Your task to perform on an android device: delete browsing data in the chrome app Image 0: 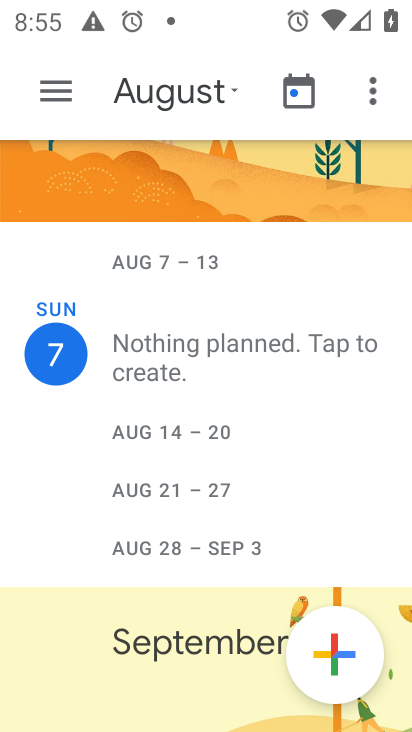
Step 0: press home button
Your task to perform on an android device: delete browsing data in the chrome app Image 1: 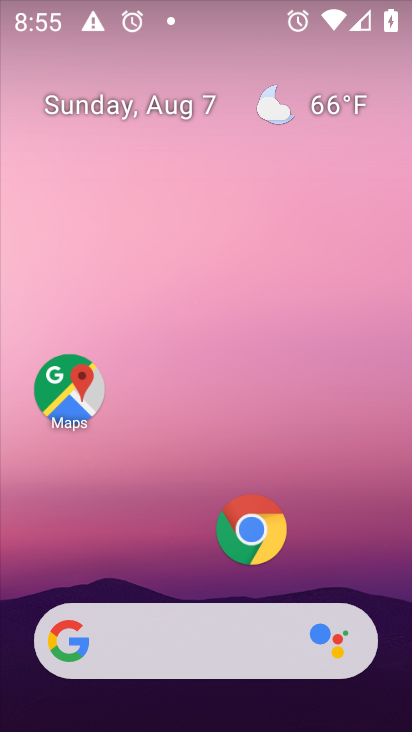
Step 1: drag from (186, 127) to (249, 8)
Your task to perform on an android device: delete browsing data in the chrome app Image 2: 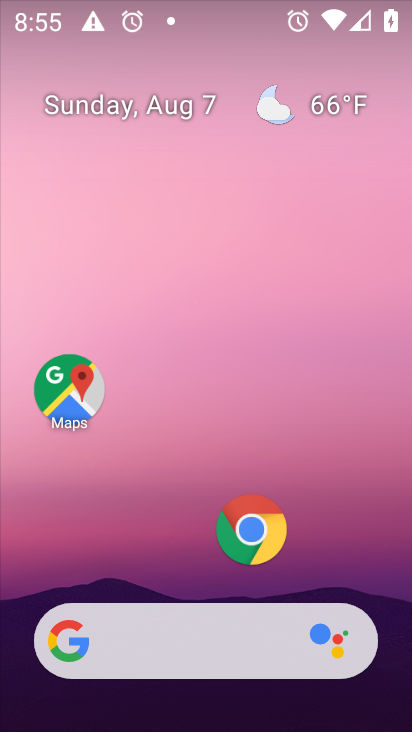
Step 2: drag from (188, 550) to (234, 51)
Your task to perform on an android device: delete browsing data in the chrome app Image 3: 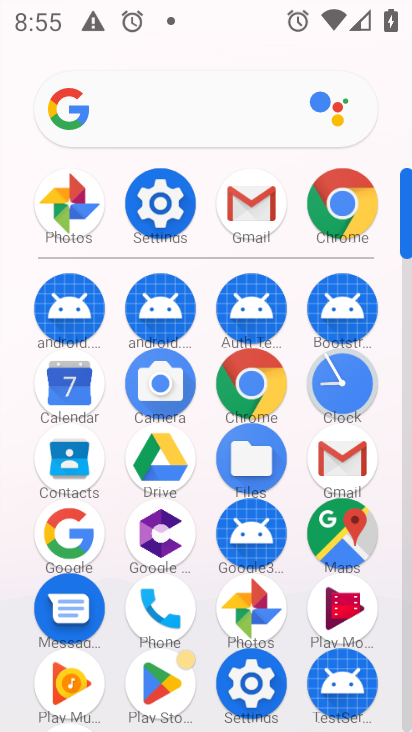
Step 3: click (264, 381)
Your task to perform on an android device: delete browsing data in the chrome app Image 4: 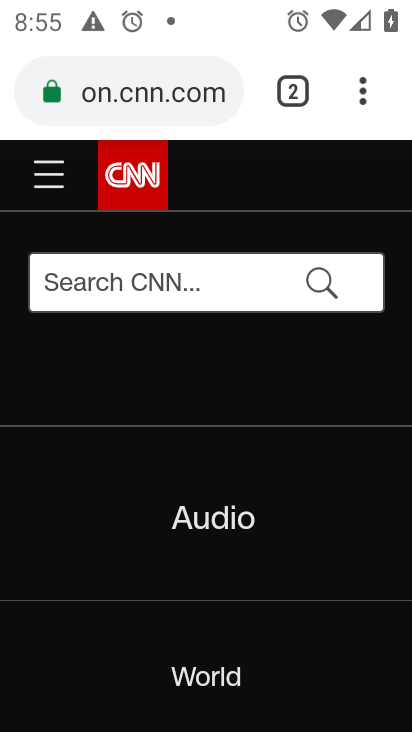
Step 4: click (361, 89)
Your task to perform on an android device: delete browsing data in the chrome app Image 5: 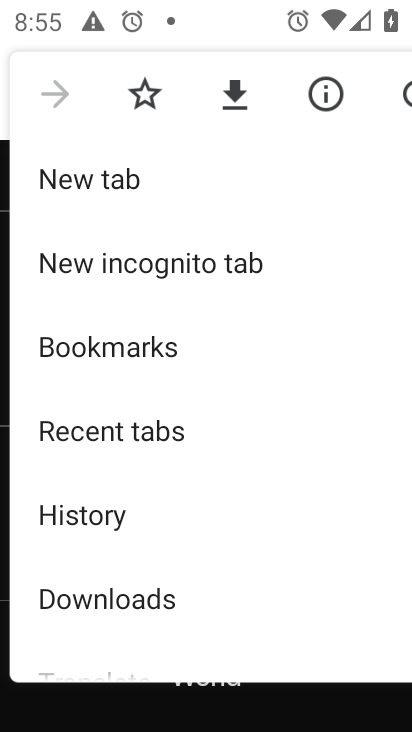
Step 5: click (97, 516)
Your task to perform on an android device: delete browsing data in the chrome app Image 6: 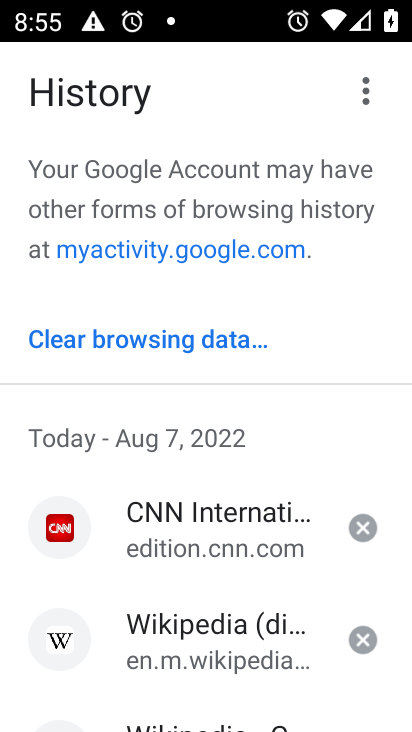
Step 6: click (179, 332)
Your task to perform on an android device: delete browsing data in the chrome app Image 7: 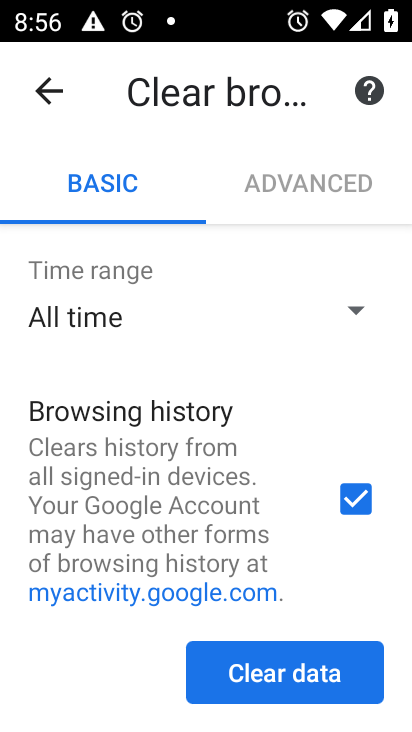
Step 7: click (300, 690)
Your task to perform on an android device: delete browsing data in the chrome app Image 8: 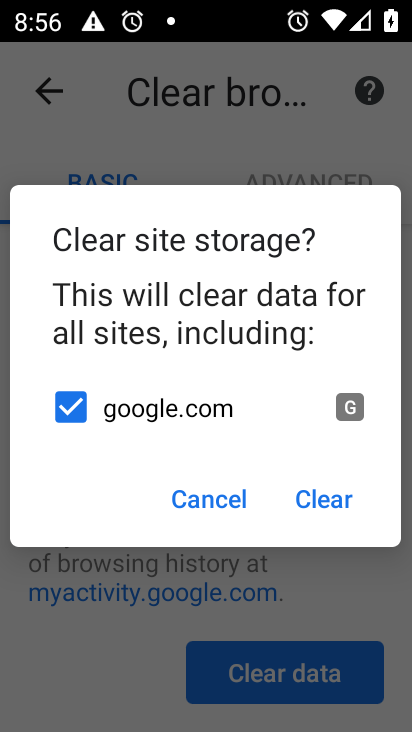
Step 8: click (325, 495)
Your task to perform on an android device: delete browsing data in the chrome app Image 9: 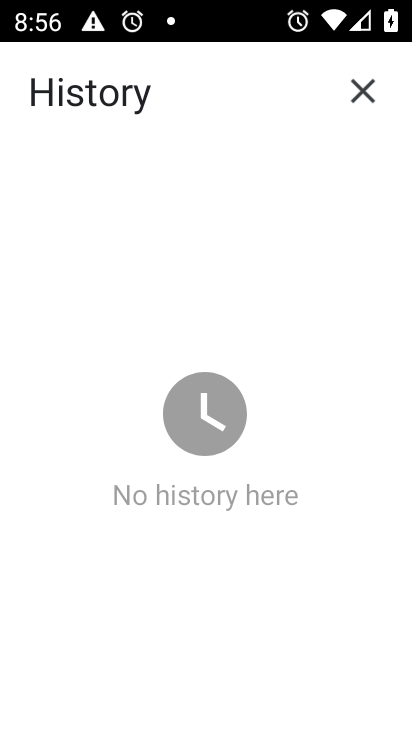
Step 9: task complete